Your task to perform on an android device: change text size in settings app Image 0: 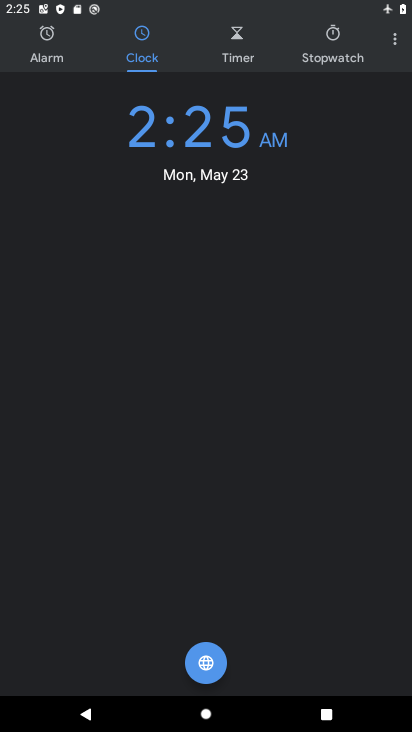
Step 0: press home button
Your task to perform on an android device: change text size in settings app Image 1: 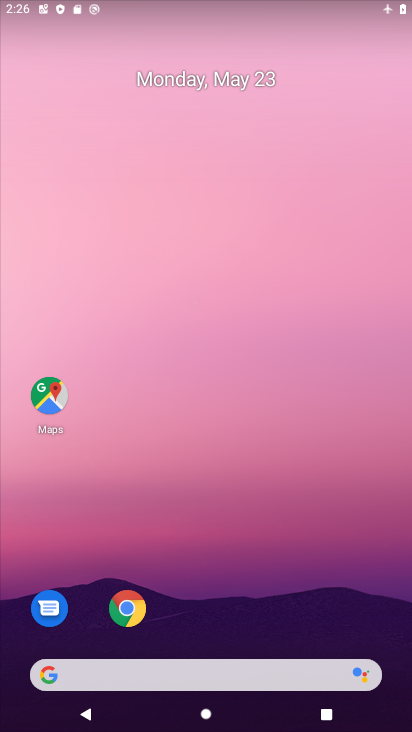
Step 1: drag from (201, 649) to (207, 65)
Your task to perform on an android device: change text size in settings app Image 2: 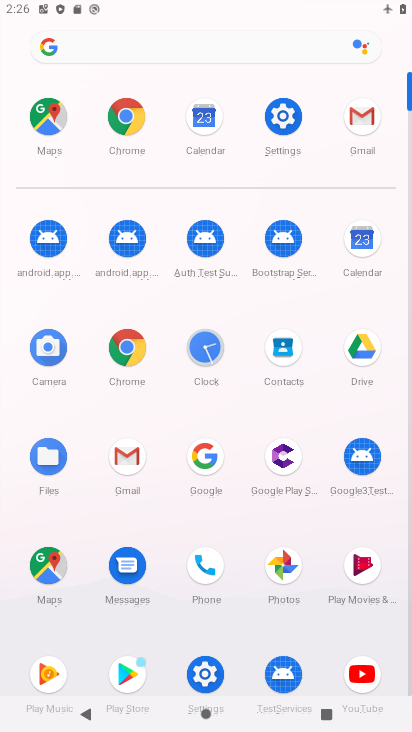
Step 2: click (297, 107)
Your task to perform on an android device: change text size in settings app Image 3: 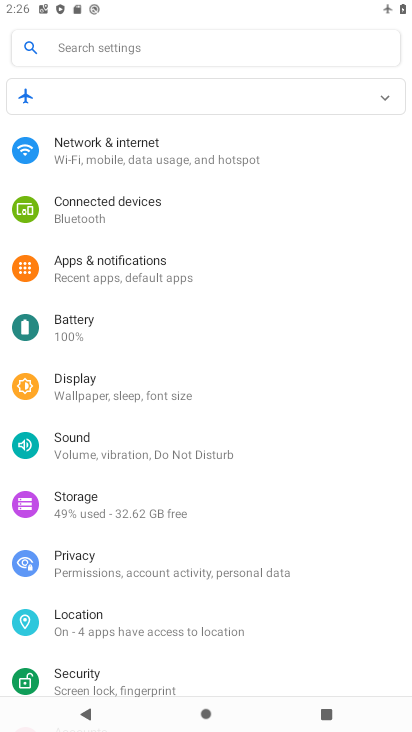
Step 3: click (72, 394)
Your task to perform on an android device: change text size in settings app Image 4: 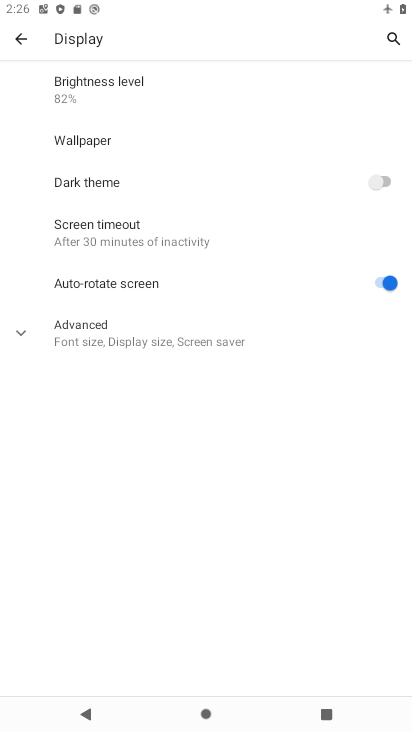
Step 4: click (145, 341)
Your task to perform on an android device: change text size in settings app Image 5: 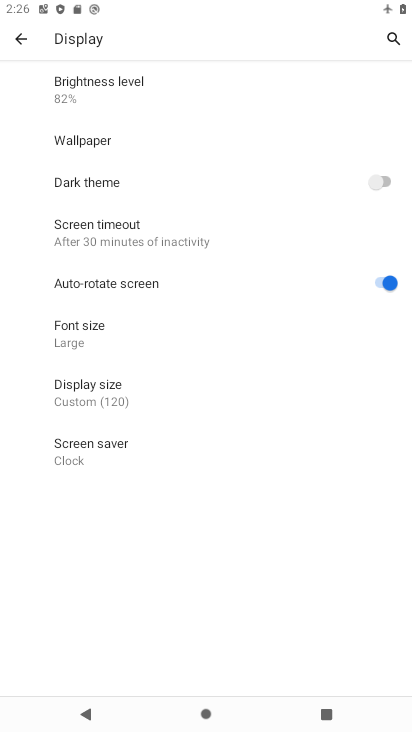
Step 5: click (80, 348)
Your task to perform on an android device: change text size in settings app Image 6: 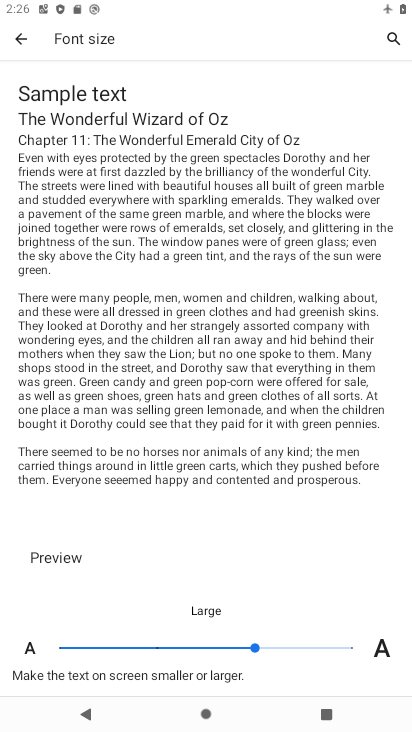
Step 6: click (168, 643)
Your task to perform on an android device: change text size in settings app Image 7: 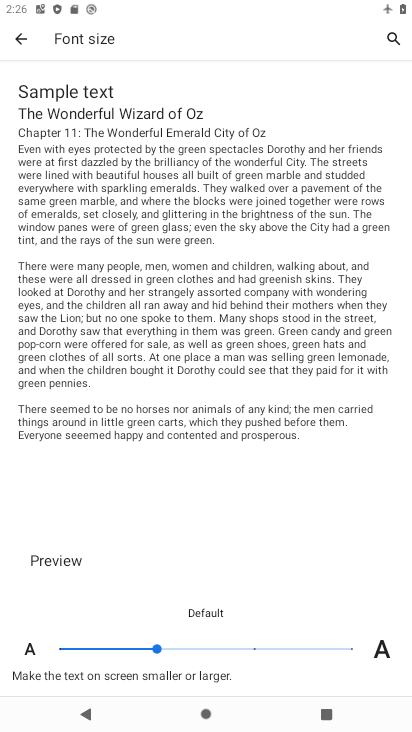
Step 7: task complete